Your task to perform on an android device: What's on my calendar tomorrow? Image 0: 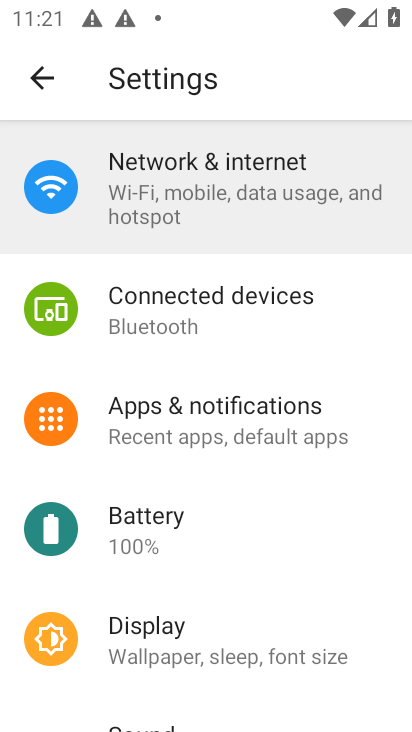
Step 0: press home button
Your task to perform on an android device: What's on my calendar tomorrow? Image 1: 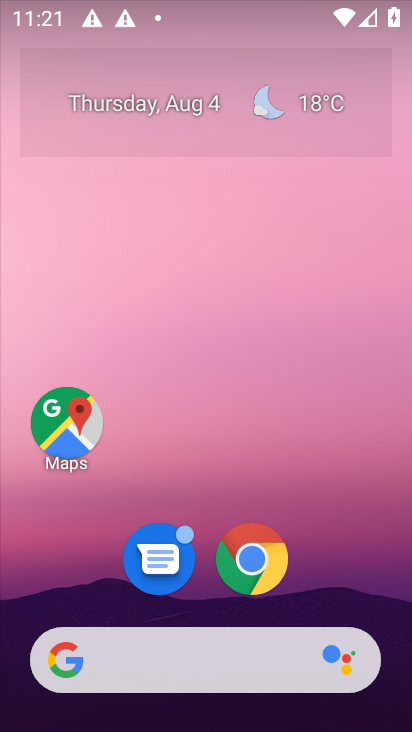
Step 1: drag from (173, 153) to (213, 97)
Your task to perform on an android device: What's on my calendar tomorrow? Image 2: 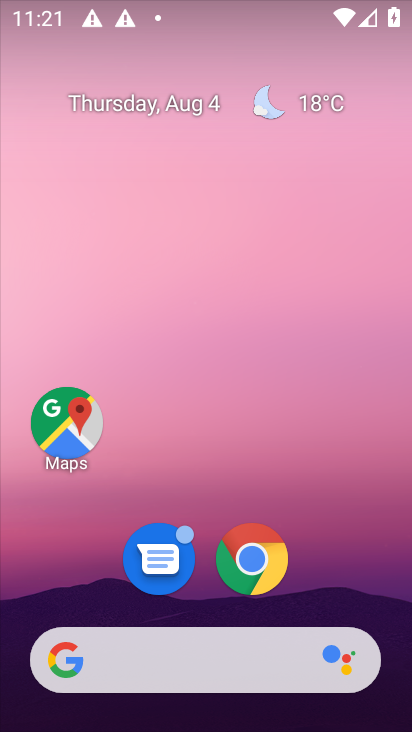
Step 2: drag from (74, 397) to (209, 231)
Your task to perform on an android device: What's on my calendar tomorrow? Image 3: 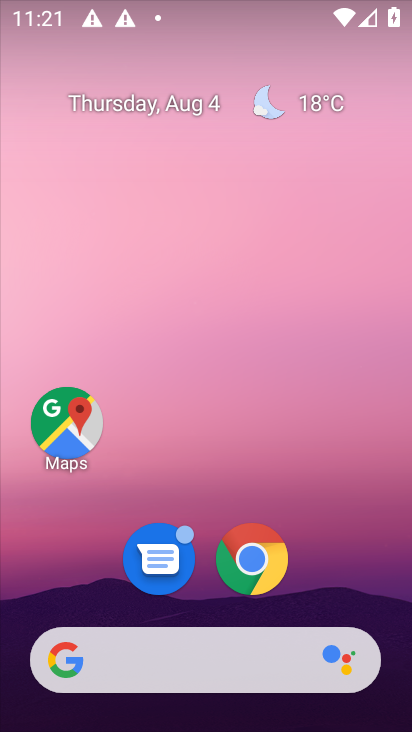
Step 3: drag from (30, 665) to (196, 148)
Your task to perform on an android device: What's on my calendar tomorrow? Image 4: 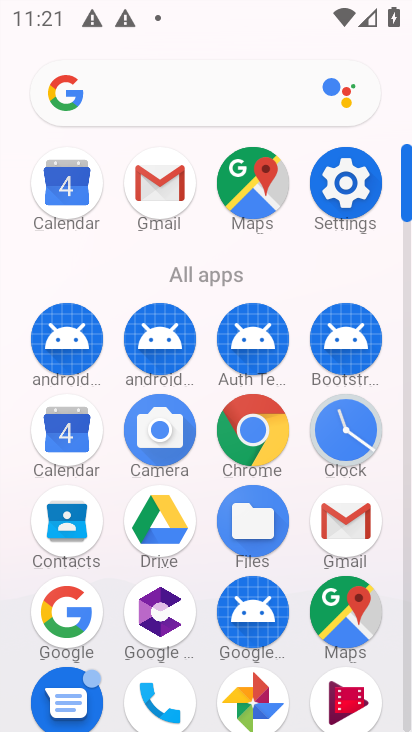
Step 4: click (50, 436)
Your task to perform on an android device: What's on my calendar tomorrow? Image 5: 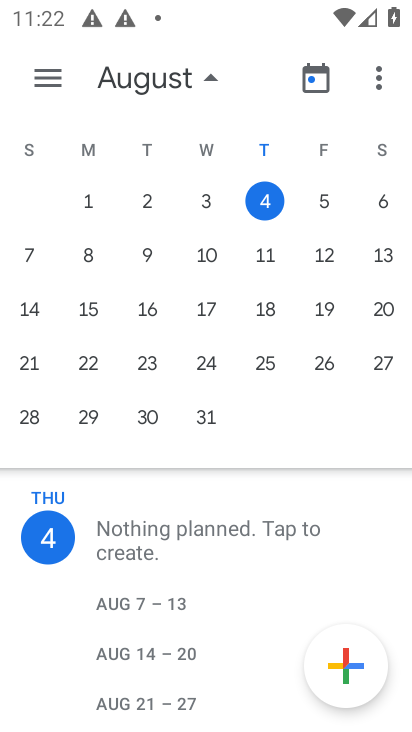
Step 5: task complete